Your task to perform on an android device: open the mobile data screen to see how much data has been used Image 0: 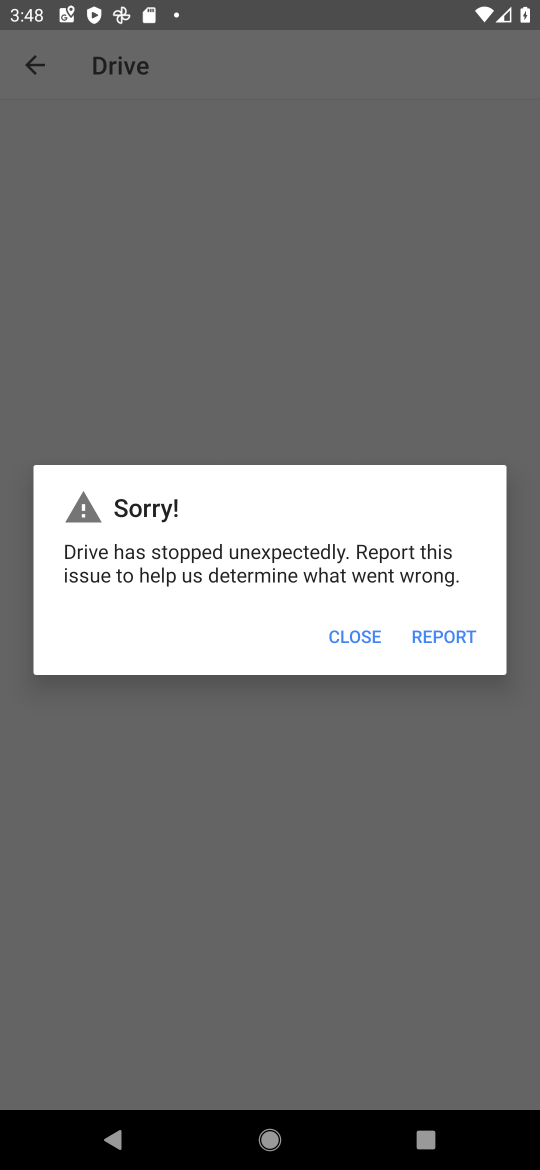
Step 0: press home button
Your task to perform on an android device: open the mobile data screen to see how much data has been used Image 1: 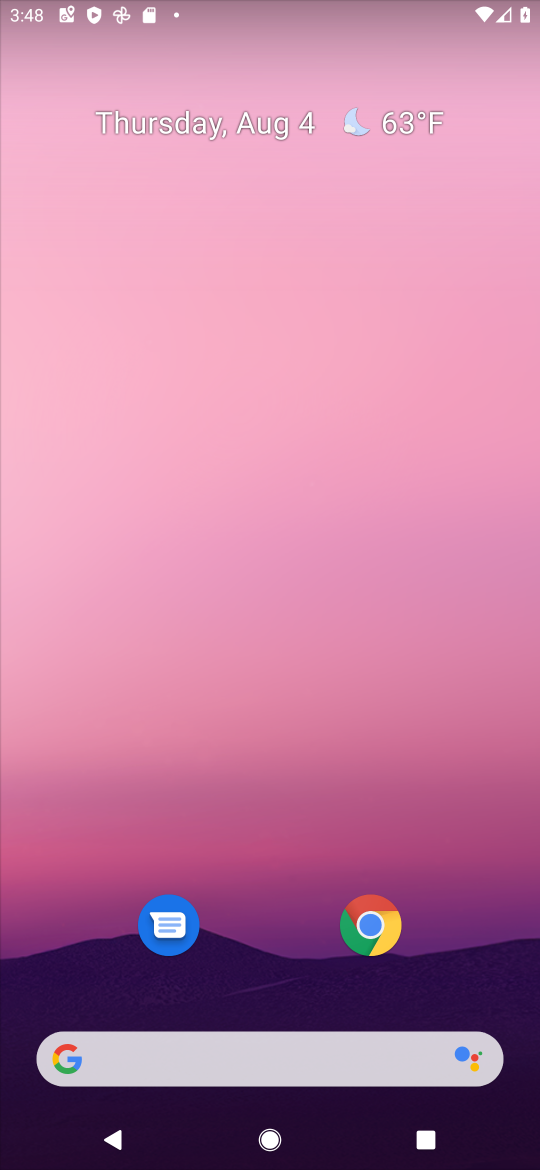
Step 1: drag from (236, 911) to (231, 24)
Your task to perform on an android device: open the mobile data screen to see how much data has been used Image 2: 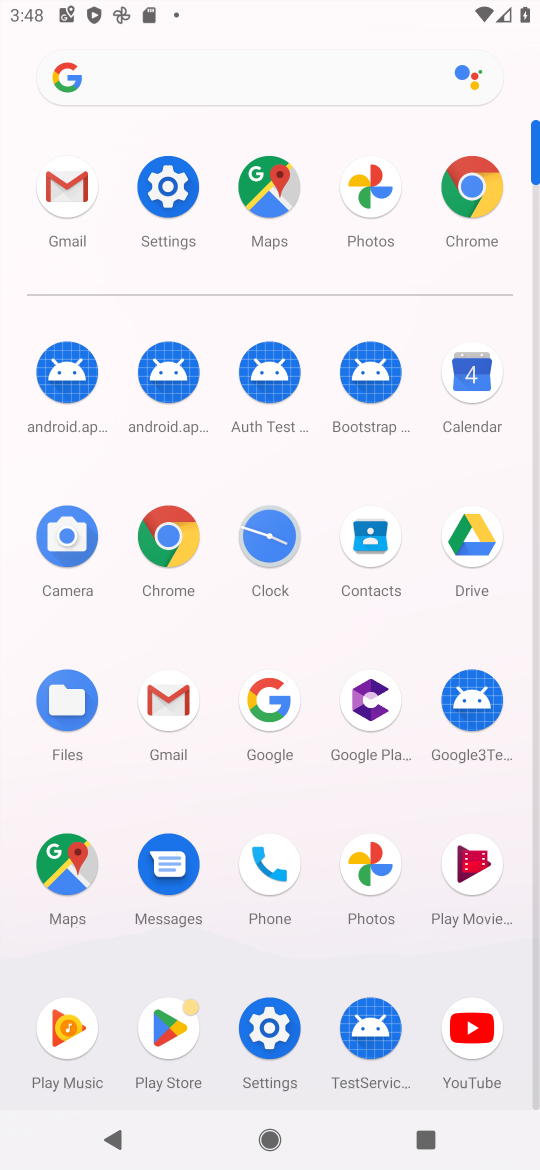
Step 2: click (267, 1018)
Your task to perform on an android device: open the mobile data screen to see how much data has been used Image 3: 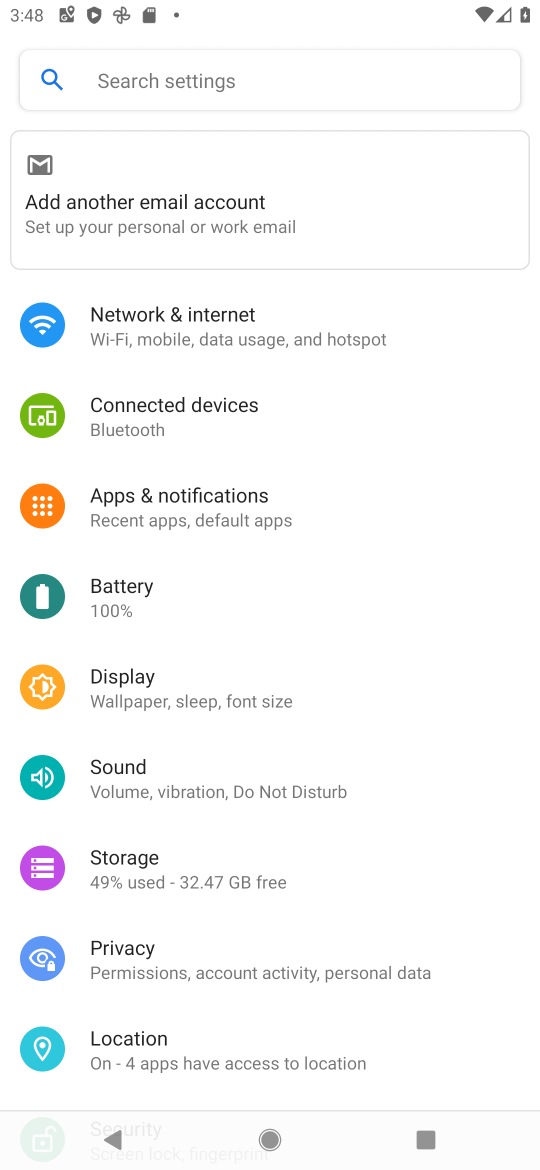
Step 3: click (140, 341)
Your task to perform on an android device: open the mobile data screen to see how much data has been used Image 4: 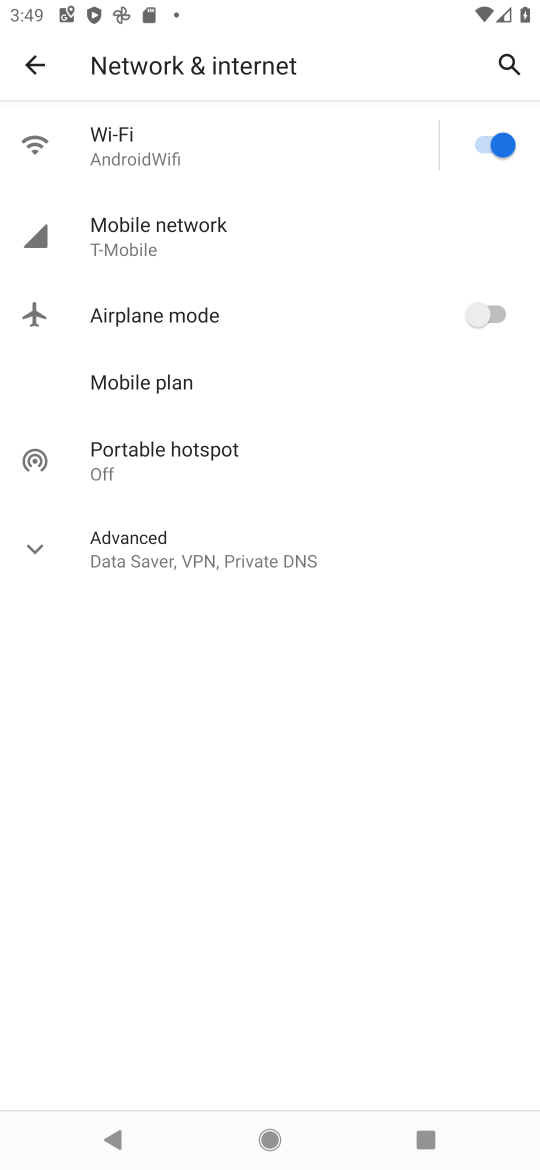
Step 4: click (140, 254)
Your task to perform on an android device: open the mobile data screen to see how much data has been used Image 5: 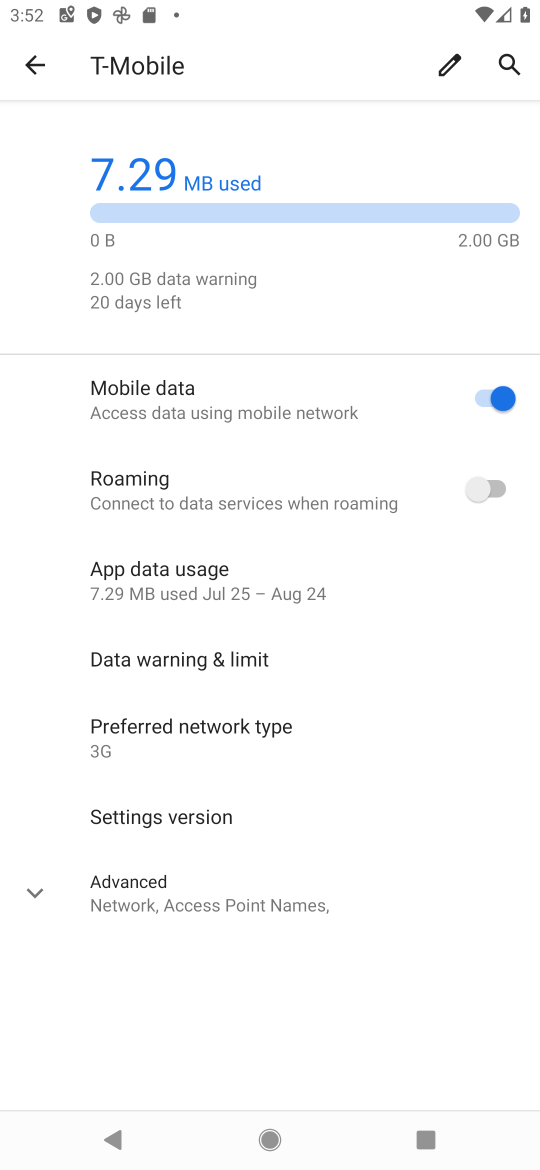
Step 5: task complete